Your task to perform on an android device: Go to notification settings Image 0: 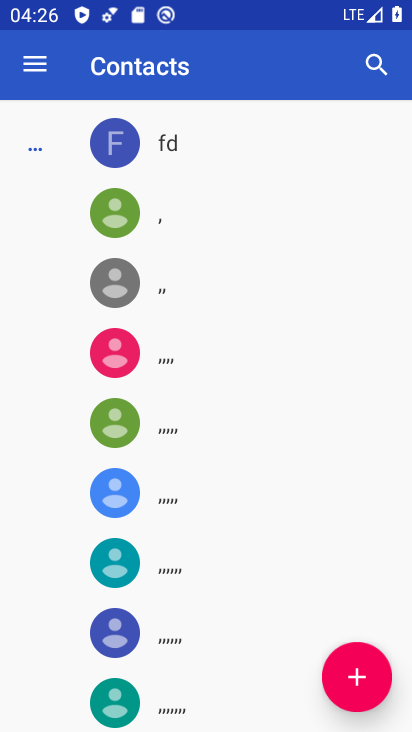
Step 0: press home button
Your task to perform on an android device: Go to notification settings Image 1: 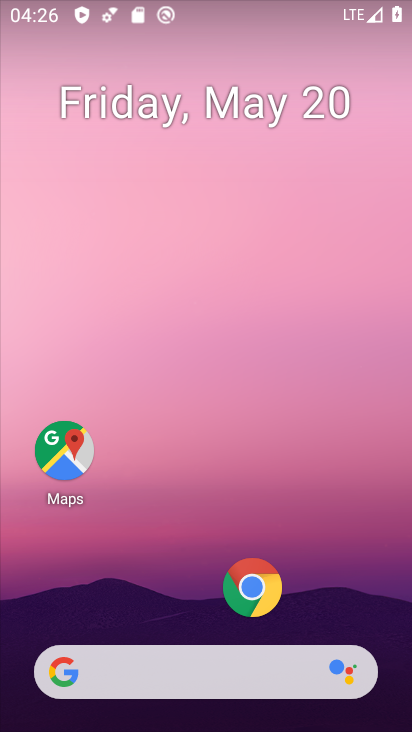
Step 1: drag from (168, 590) to (179, 329)
Your task to perform on an android device: Go to notification settings Image 2: 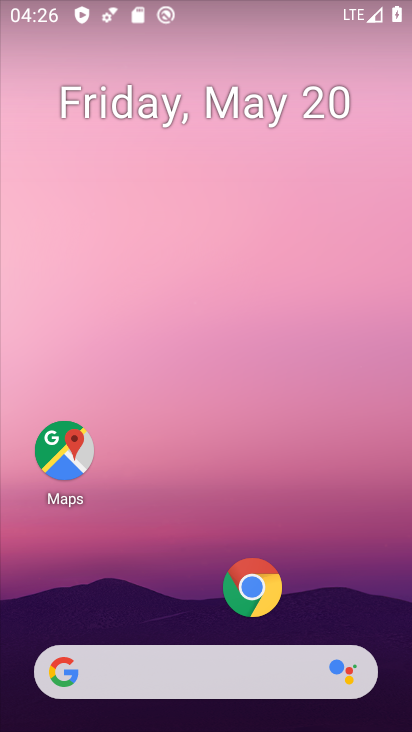
Step 2: drag from (124, 626) to (240, 50)
Your task to perform on an android device: Go to notification settings Image 3: 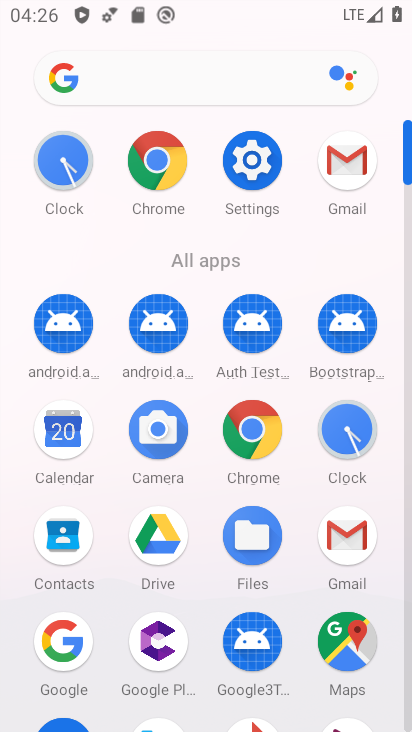
Step 3: click (262, 145)
Your task to perform on an android device: Go to notification settings Image 4: 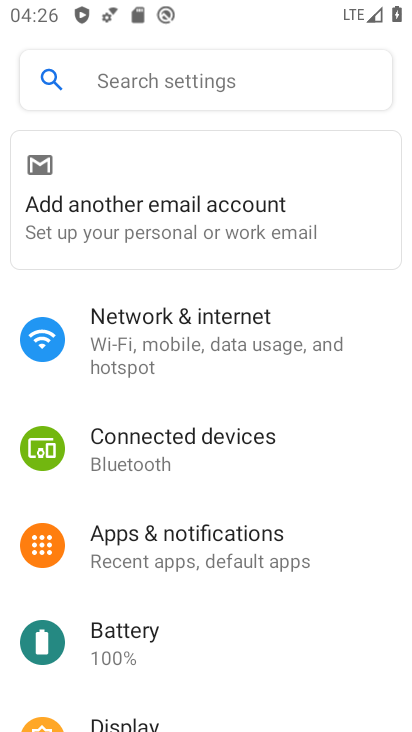
Step 4: click (140, 522)
Your task to perform on an android device: Go to notification settings Image 5: 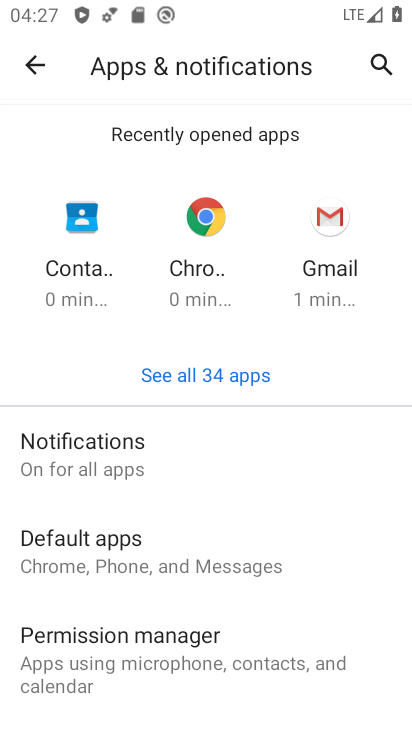
Step 5: task complete